Your task to perform on an android device: Search for pizza restaurants on Maps Image 0: 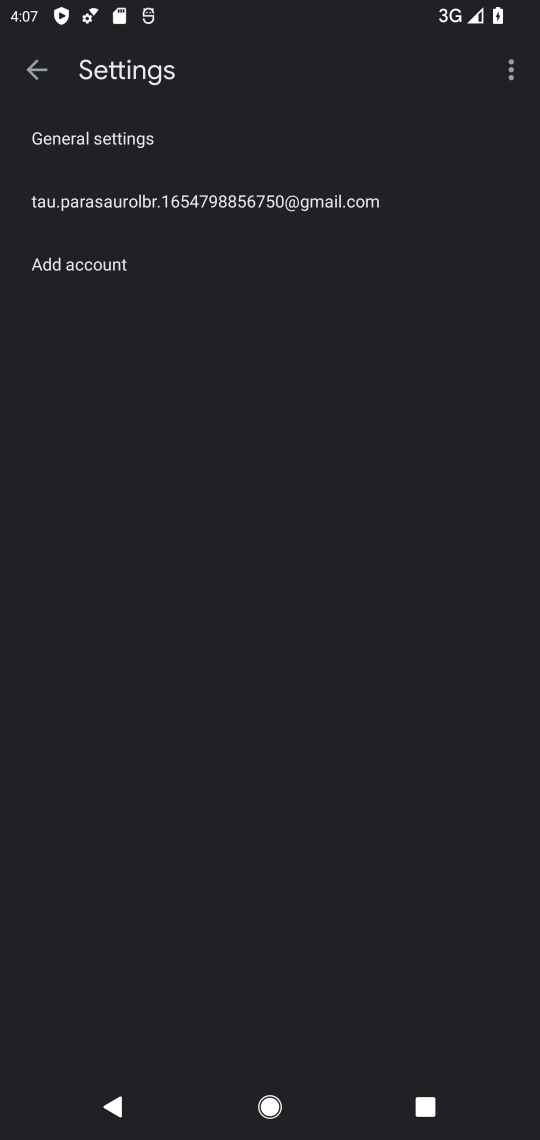
Step 0: press home button
Your task to perform on an android device: Search for pizza restaurants on Maps Image 1: 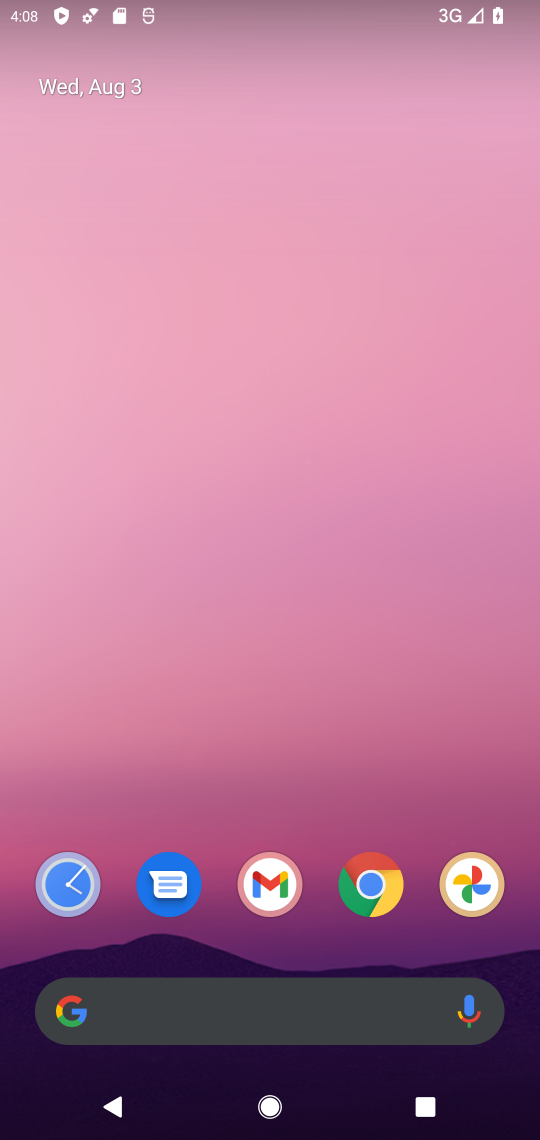
Step 1: drag from (325, 950) to (326, 98)
Your task to perform on an android device: Search for pizza restaurants on Maps Image 2: 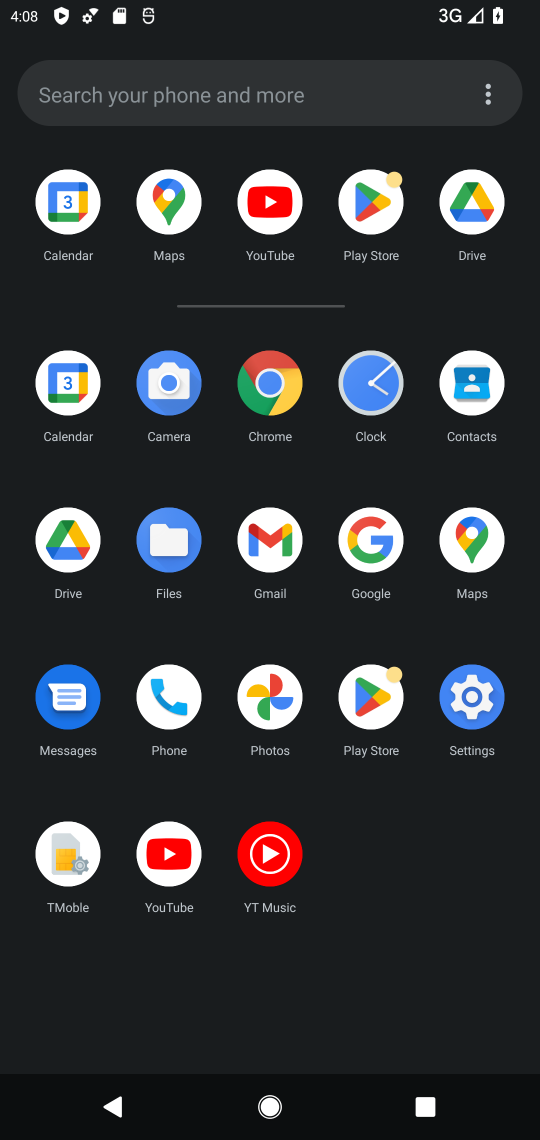
Step 2: drag from (303, 936) to (382, 110)
Your task to perform on an android device: Search for pizza restaurants on Maps Image 3: 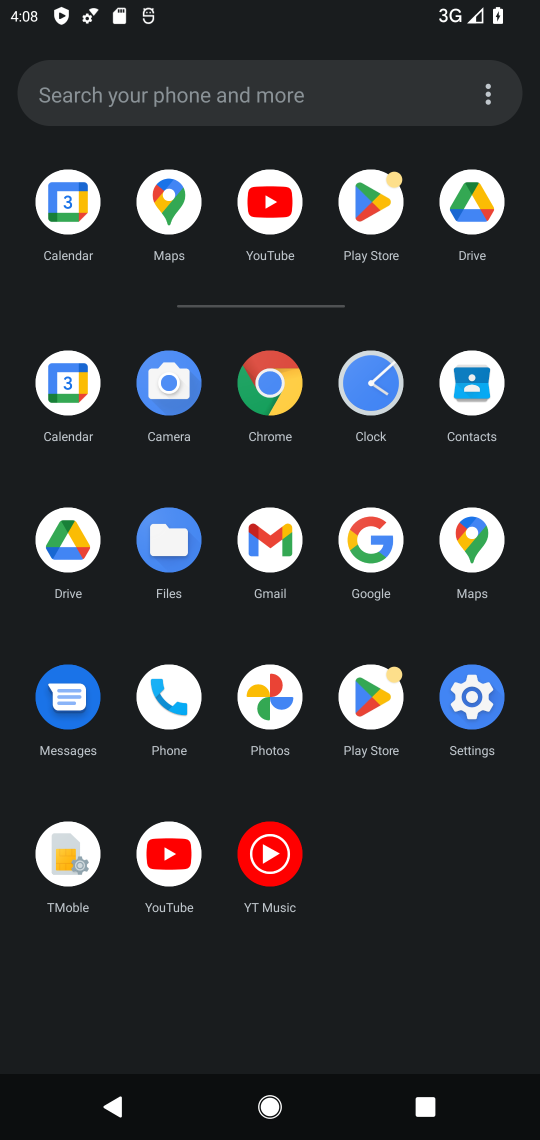
Step 3: drag from (306, 782) to (367, 386)
Your task to perform on an android device: Search for pizza restaurants on Maps Image 4: 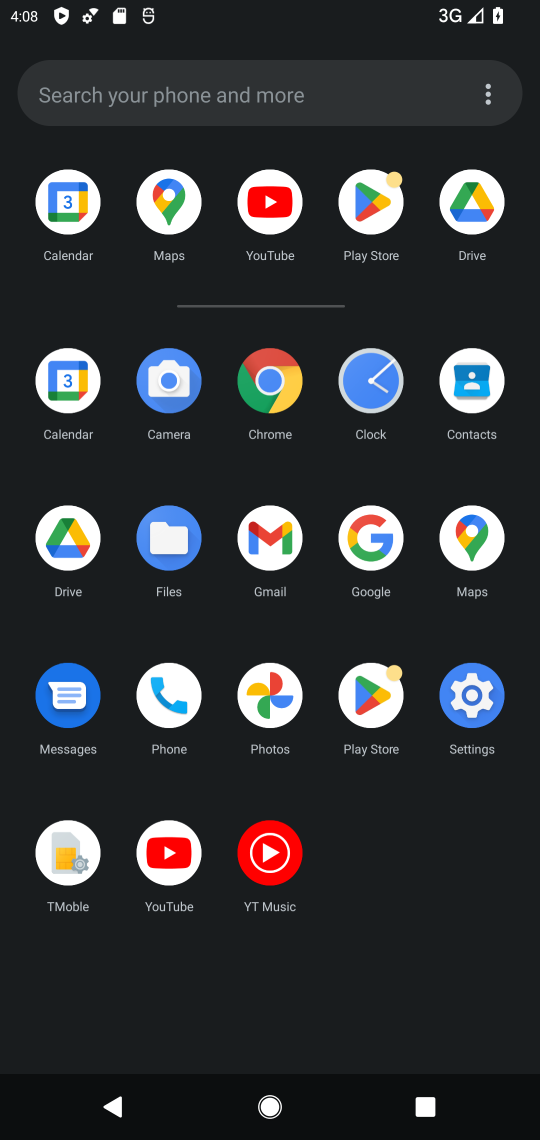
Step 4: click (391, 233)
Your task to perform on an android device: Search for pizza restaurants on Maps Image 5: 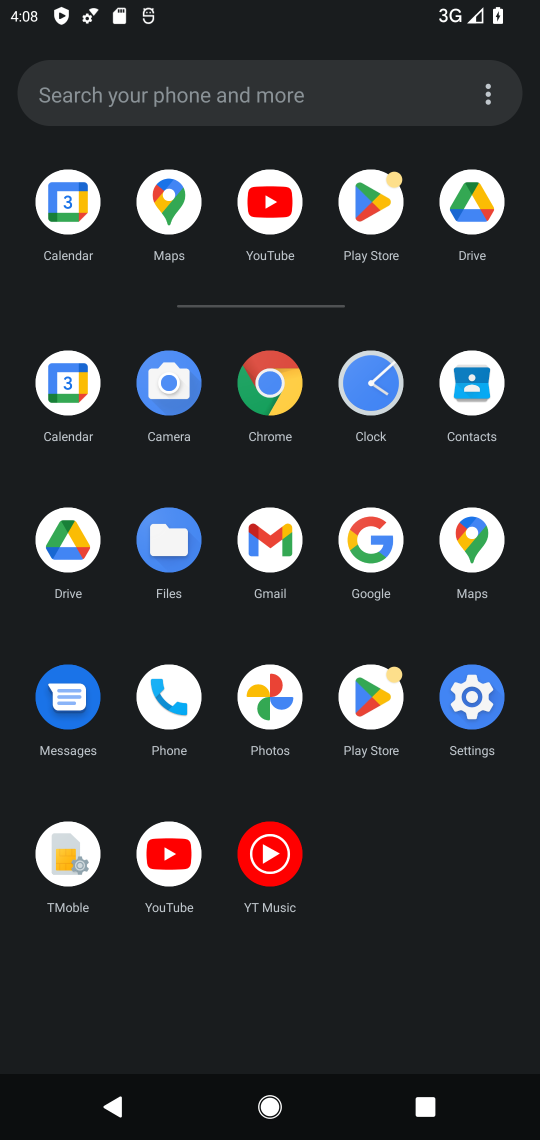
Step 5: click (391, 233)
Your task to perform on an android device: Search for pizza restaurants on Maps Image 6: 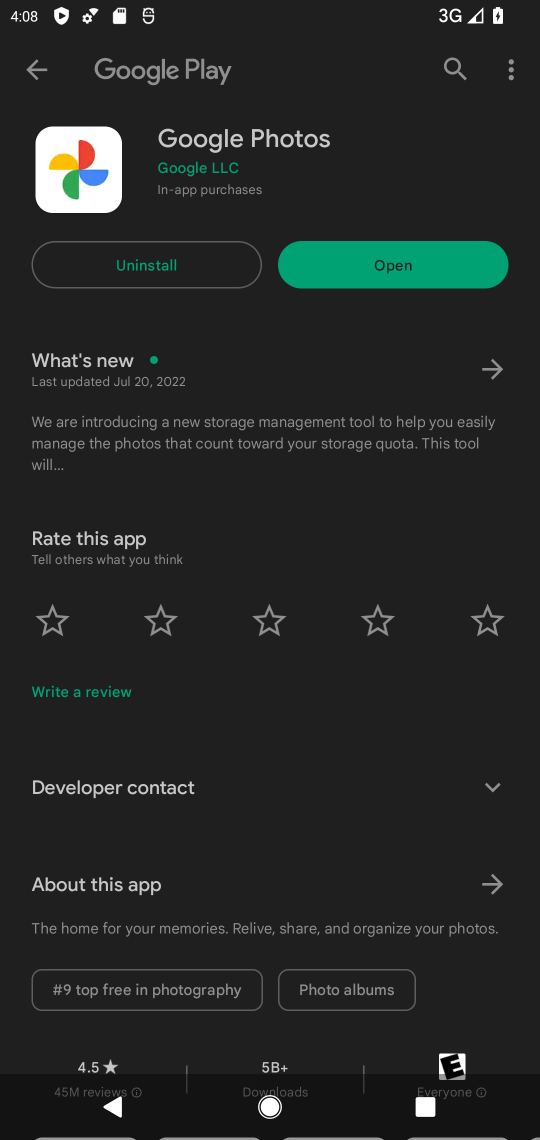
Step 6: click (465, 72)
Your task to perform on an android device: Search for pizza restaurants on Maps Image 7: 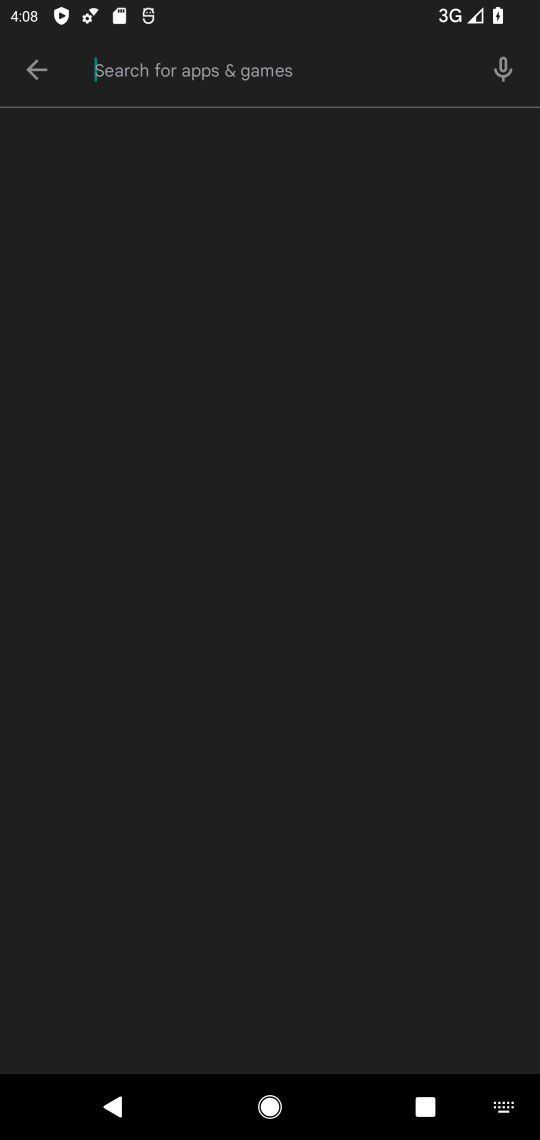
Step 7: type "pizza"
Your task to perform on an android device: Search for pizza restaurants on Maps Image 8: 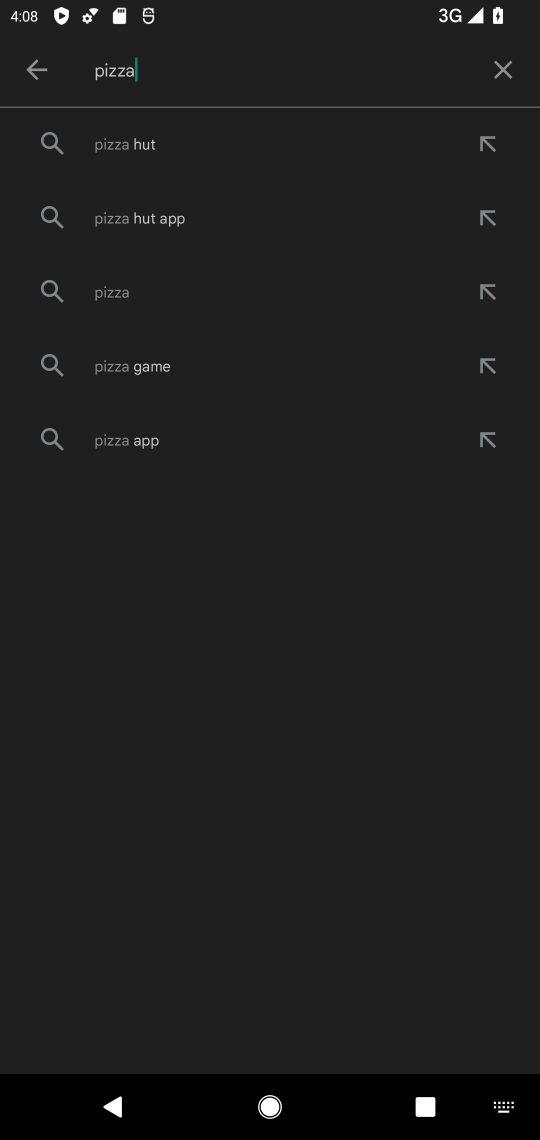
Step 8: click (301, 154)
Your task to perform on an android device: Search for pizza restaurants on Maps Image 9: 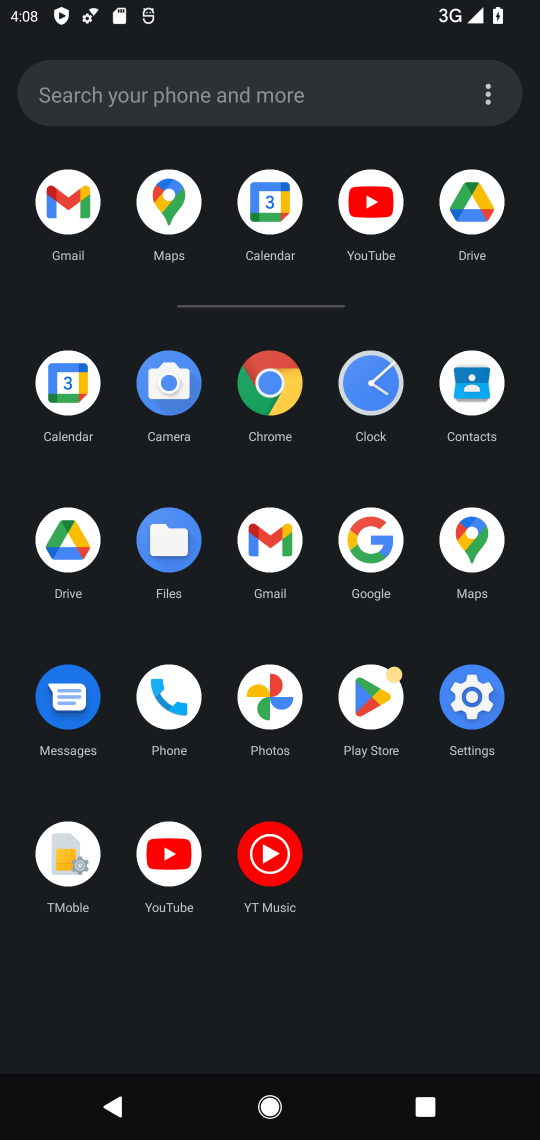
Step 9: click (151, 240)
Your task to perform on an android device: Search for pizza restaurants on Maps Image 10: 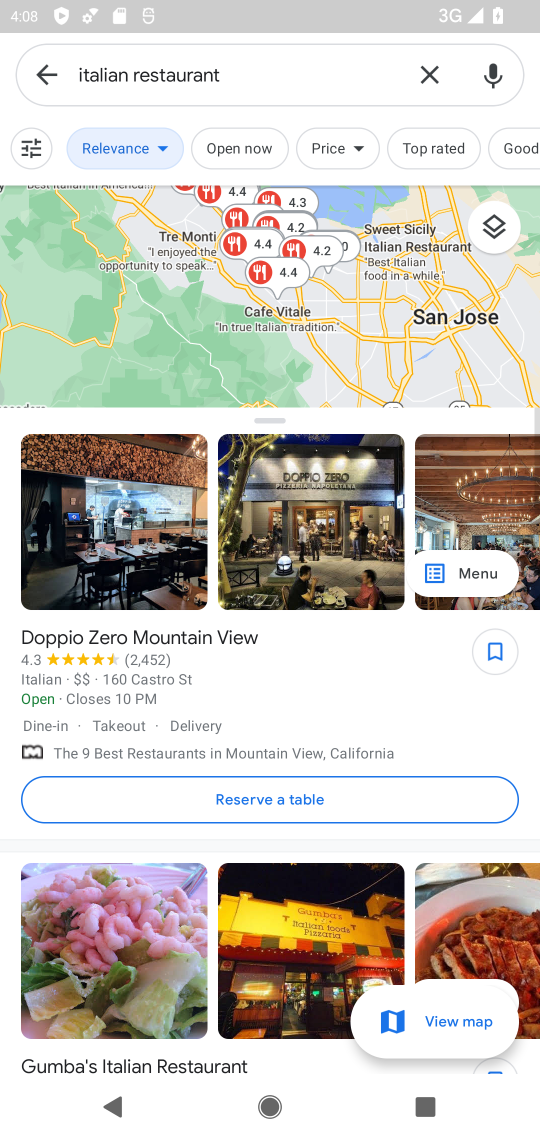
Step 10: click (426, 71)
Your task to perform on an android device: Search for pizza restaurants on Maps Image 11: 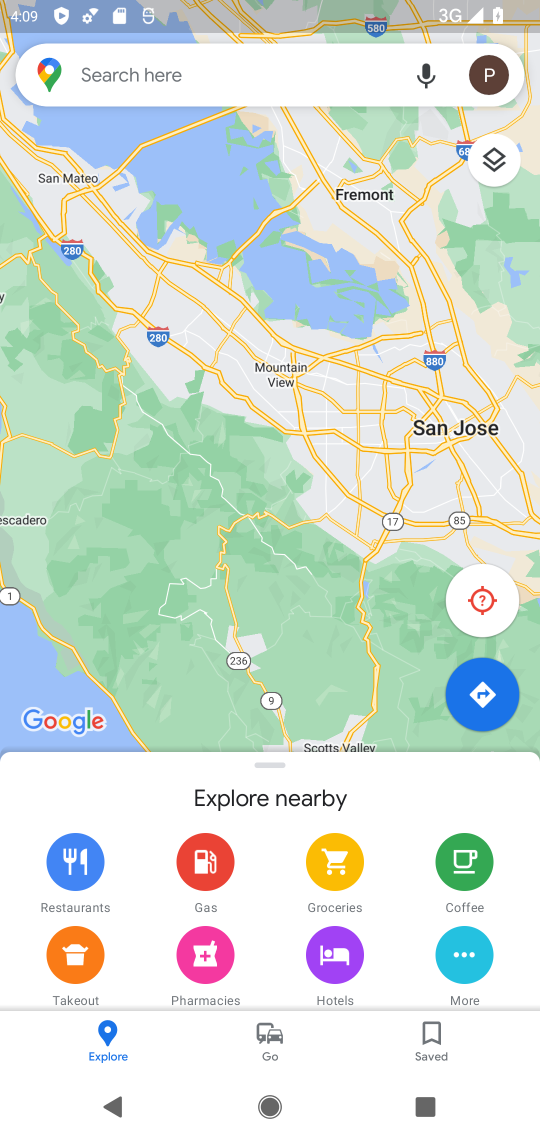
Step 11: click (157, 60)
Your task to perform on an android device: Search for pizza restaurants on Maps Image 12: 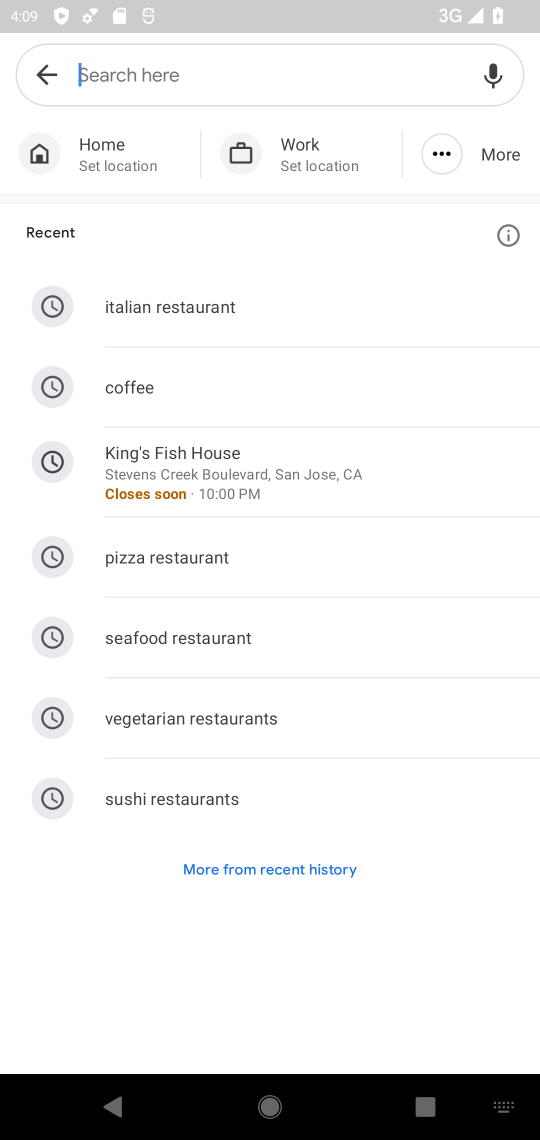
Step 12: type "pizaa"
Your task to perform on an android device: Search for pizza restaurants on Maps Image 13: 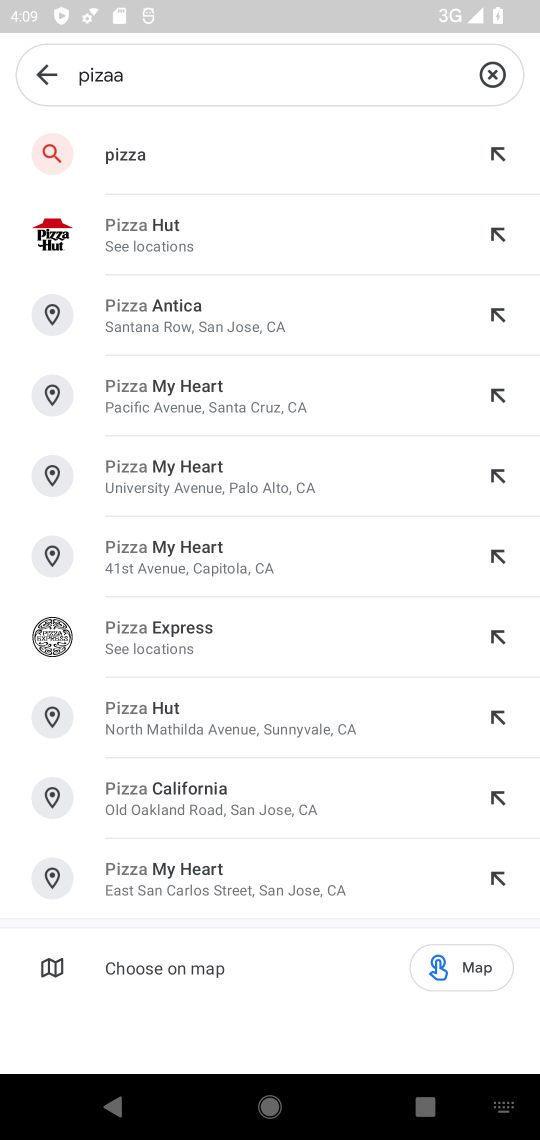
Step 13: click (163, 181)
Your task to perform on an android device: Search for pizza restaurants on Maps Image 14: 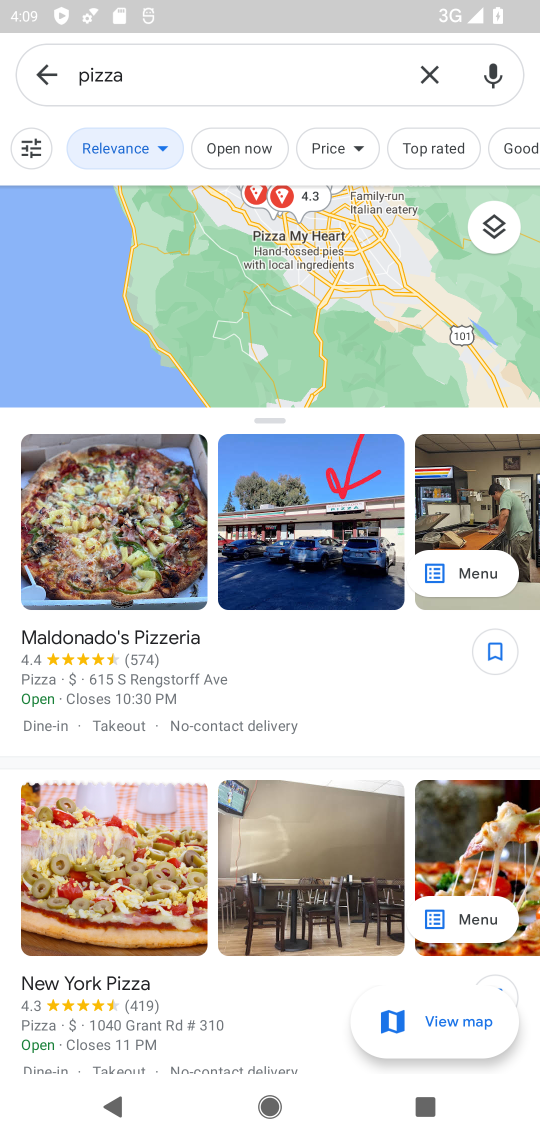
Step 14: task complete